Your task to perform on an android device: Add macbook pro to the cart on bestbuy, then select checkout. Image 0: 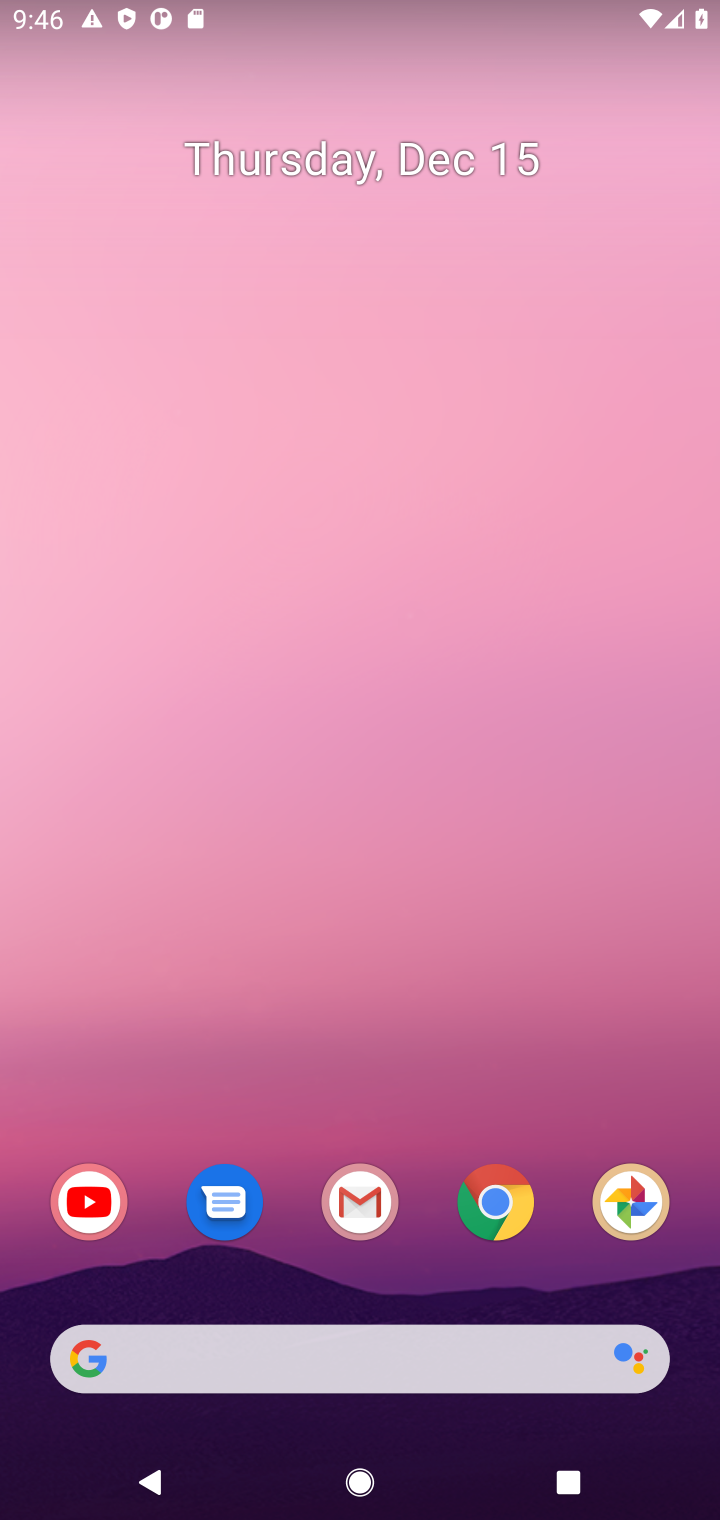
Step 0: click (497, 1209)
Your task to perform on an android device: Add macbook pro to the cart on bestbuy, then select checkout. Image 1: 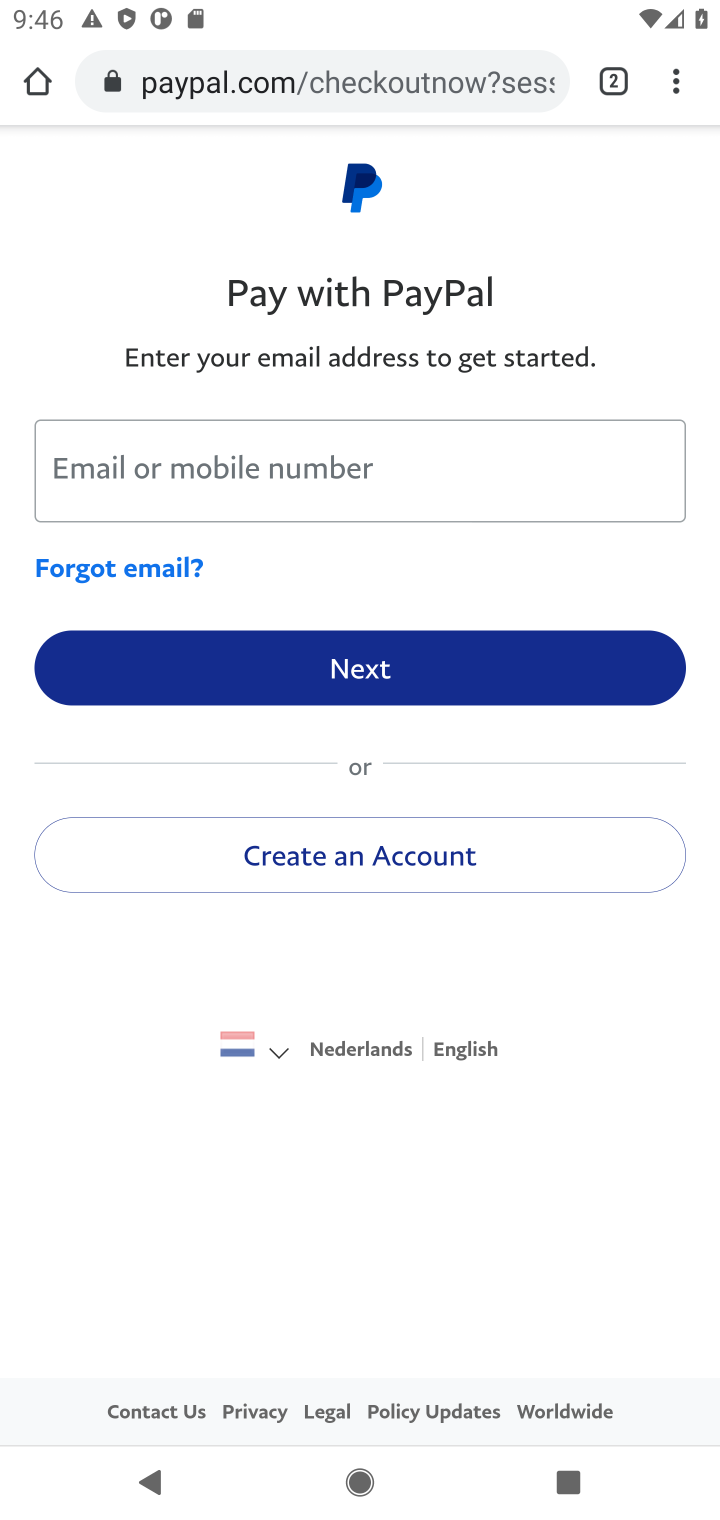
Step 1: click (286, 82)
Your task to perform on an android device: Add macbook pro to the cart on bestbuy, then select checkout. Image 2: 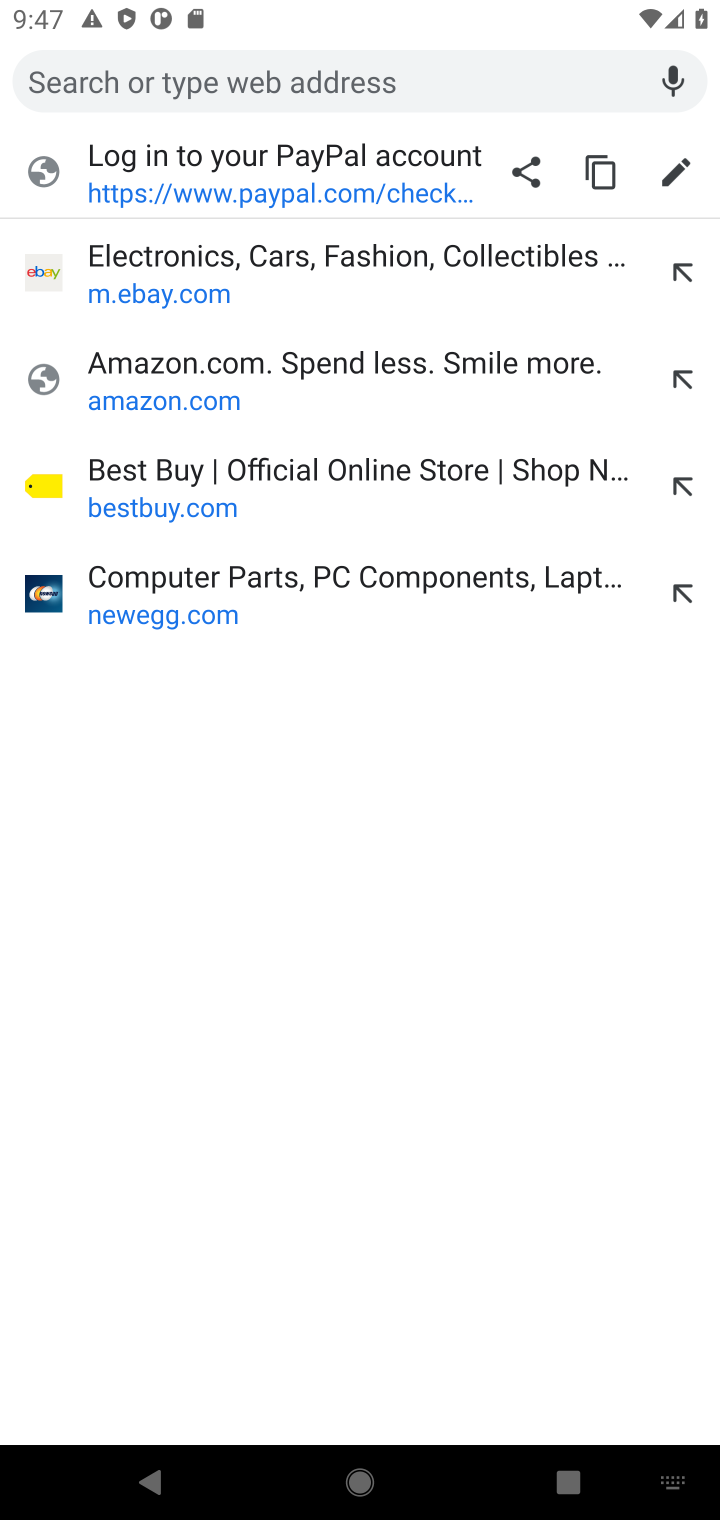
Step 2: click (105, 489)
Your task to perform on an android device: Add macbook pro to the cart on bestbuy, then select checkout. Image 3: 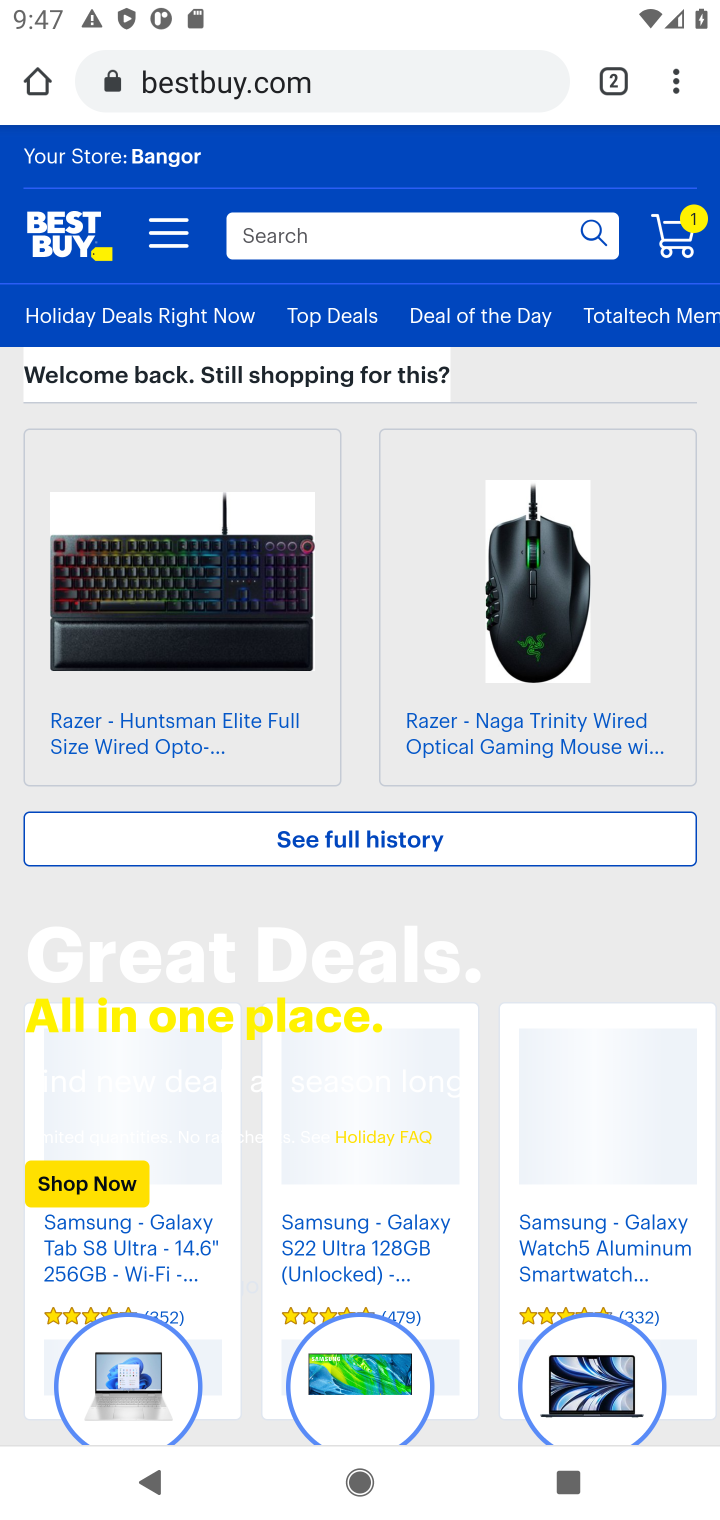
Step 3: click (279, 236)
Your task to perform on an android device: Add macbook pro to the cart on bestbuy, then select checkout. Image 4: 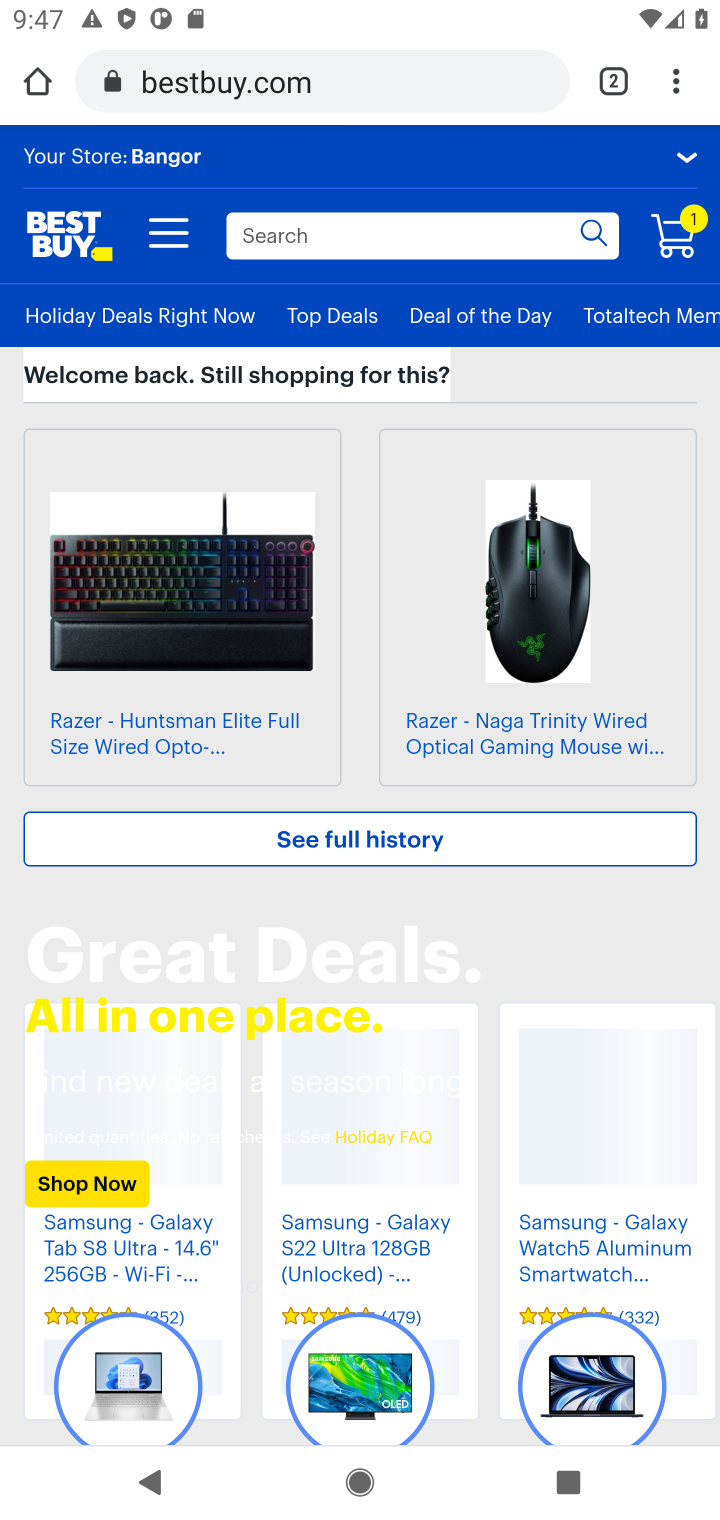
Step 4: click (301, 232)
Your task to perform on an android device: Add macbook pro to the cart on bestbuy, then select checkout. Image 5: 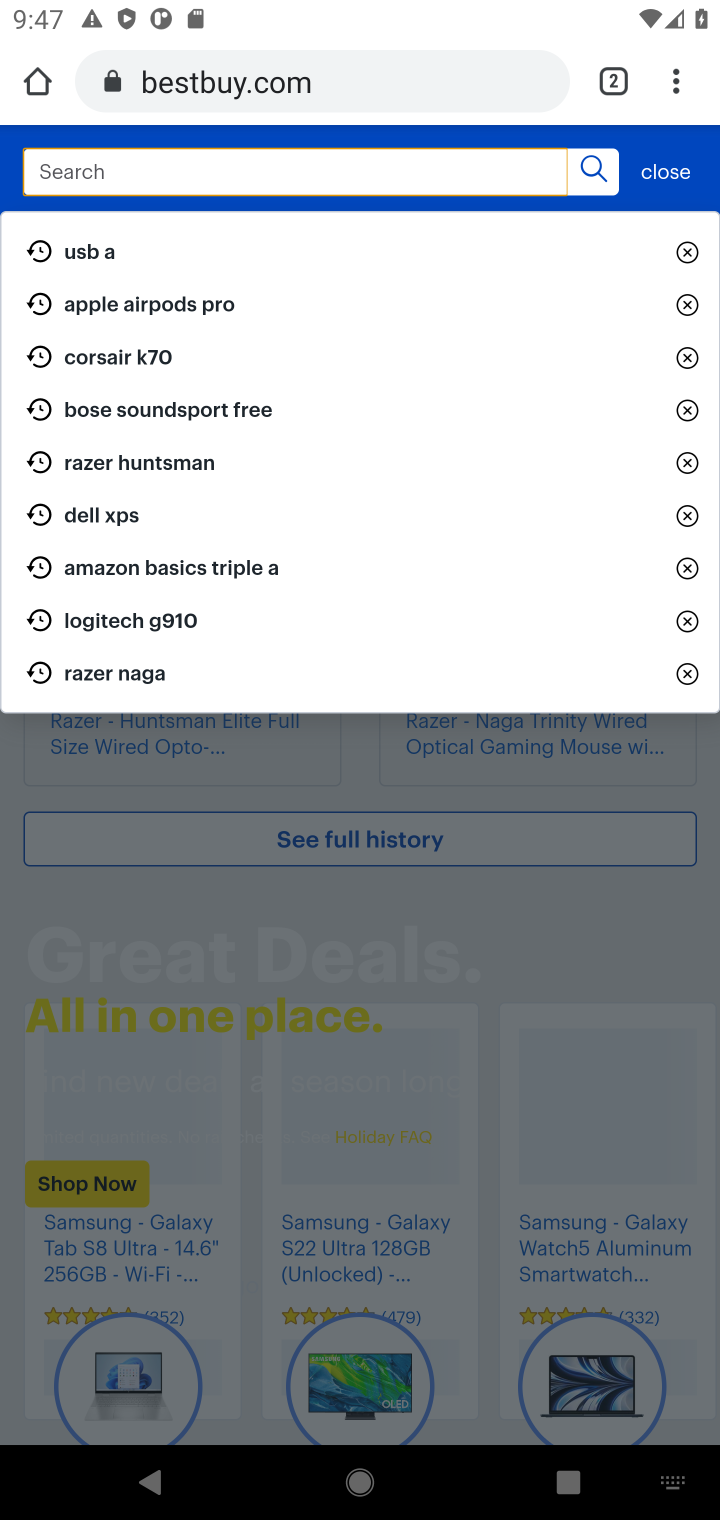
Step 5: type "macbook pro"
Your task to perform on an android device: Add macbook pro to the cart on bestbuy, then select checkout. Image 6: 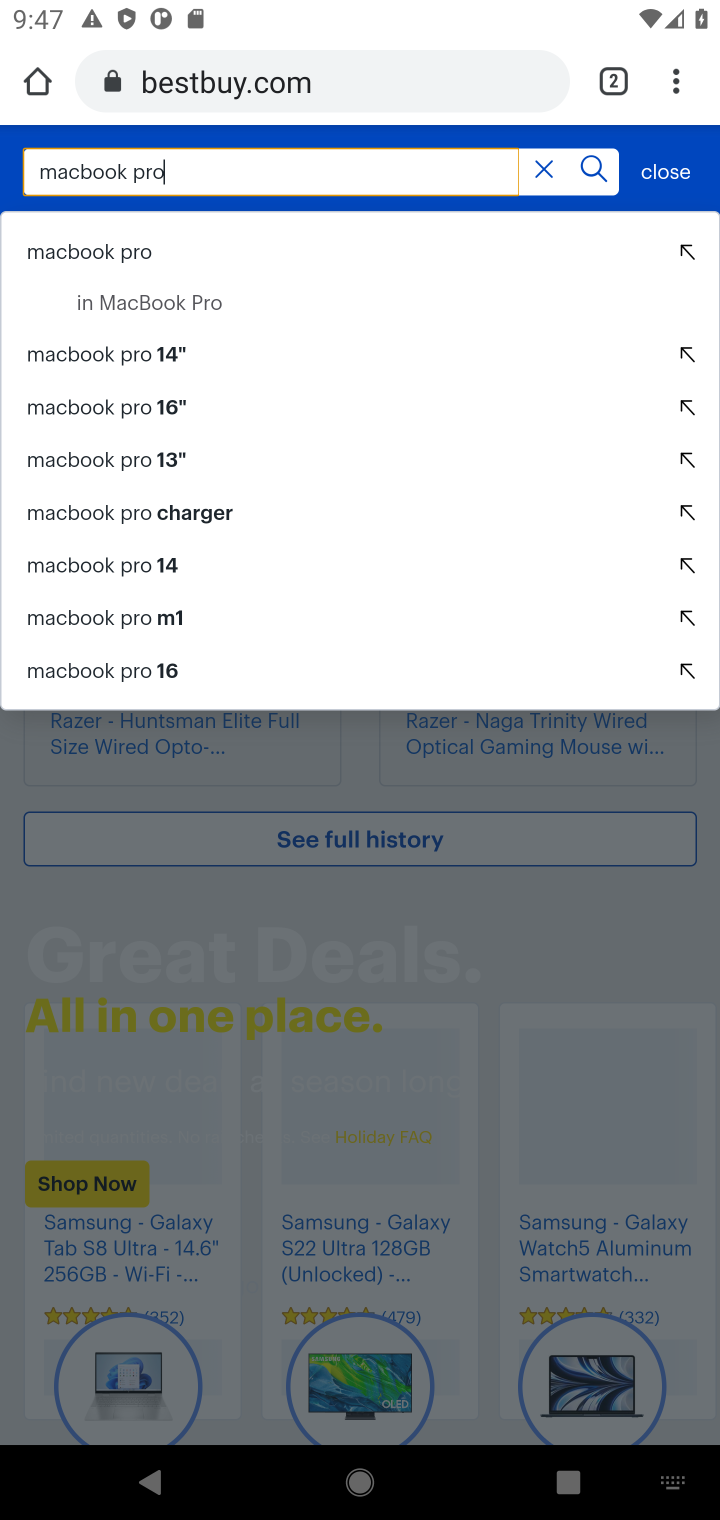
Step 6: click (45, 264)
Your task to perform on an android device: Add macbook pro to the cart on bestbuy, then select checkout. Image 7: 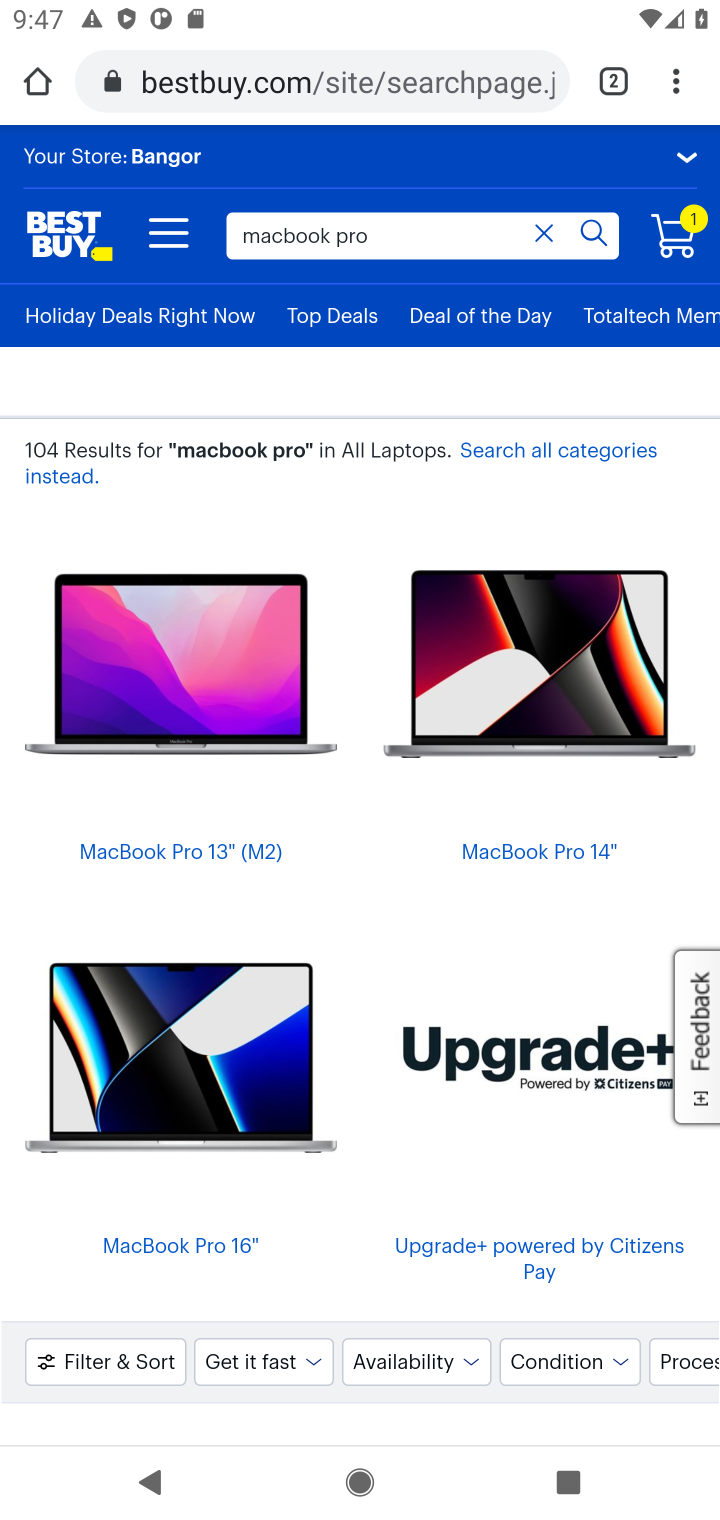
Step 7: drag from (299, 940) to (260, 278)
Your task to perform on an android device: Add macbook pro to the cart on bestbuy, then select checkout. Image 8: 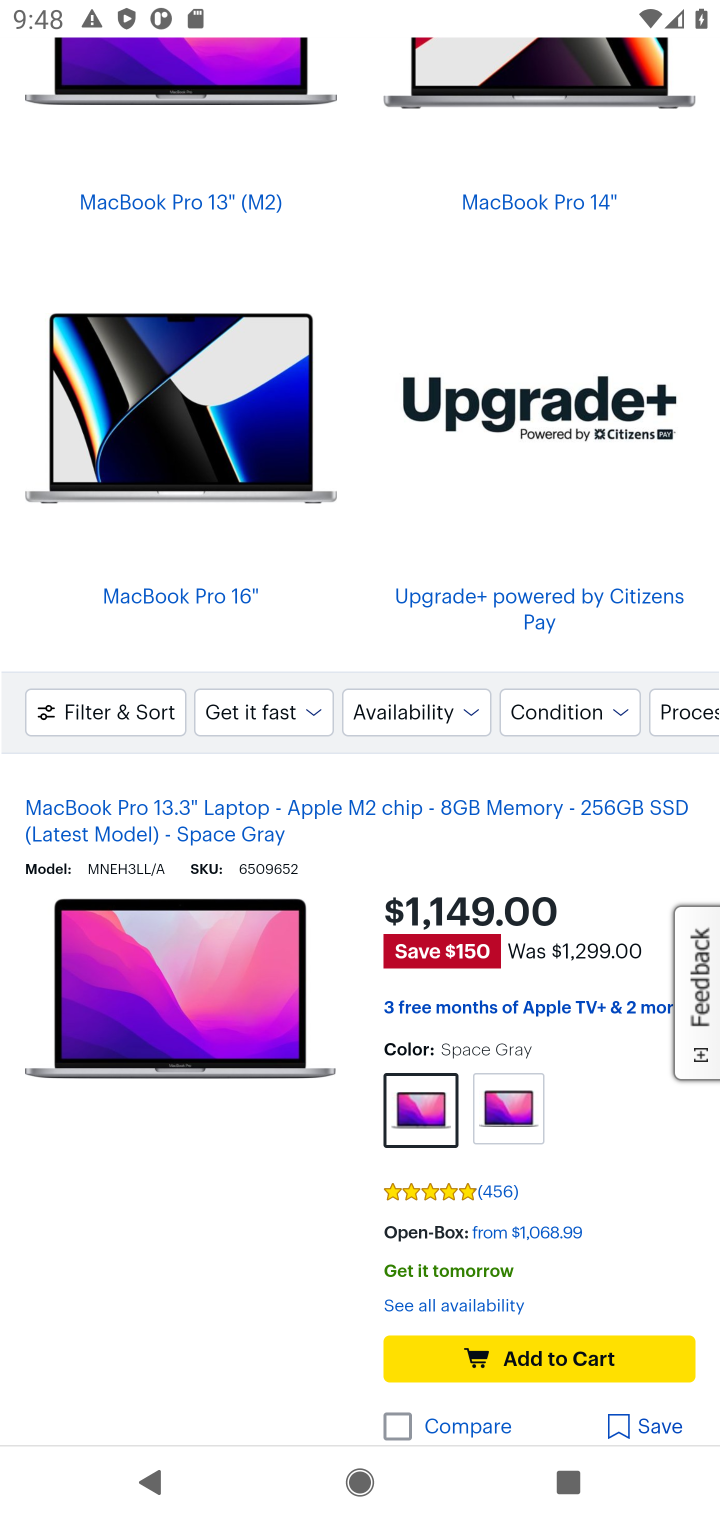
Step 8: click (529, 1359)
Your task to perform on an android device: Add macbook pro to the cart on bestbuy, then select checkout. Image 9: 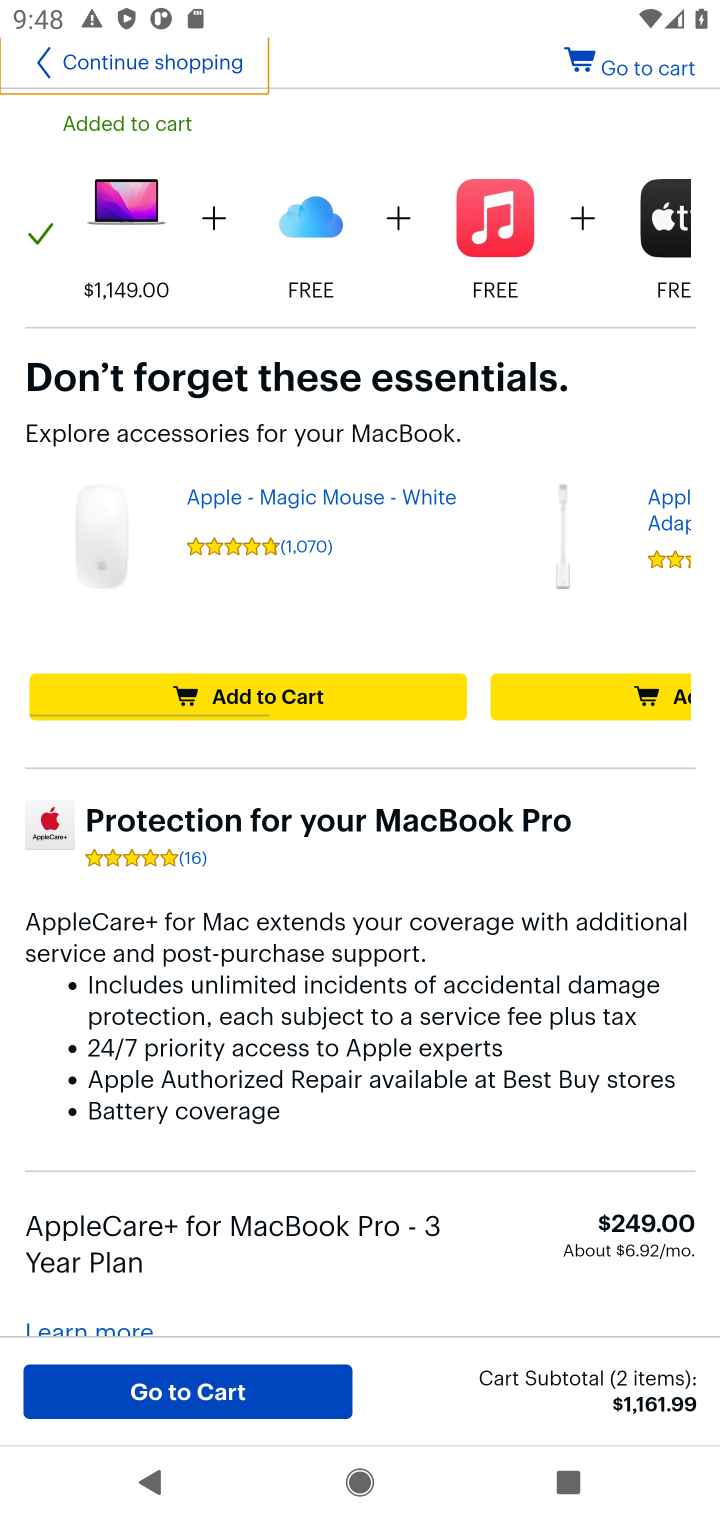
Step 9: click (670, 64)
Your task to perform on an android device: Add macbook pro to the cart on bestbuy, then select checkout. Image 10: 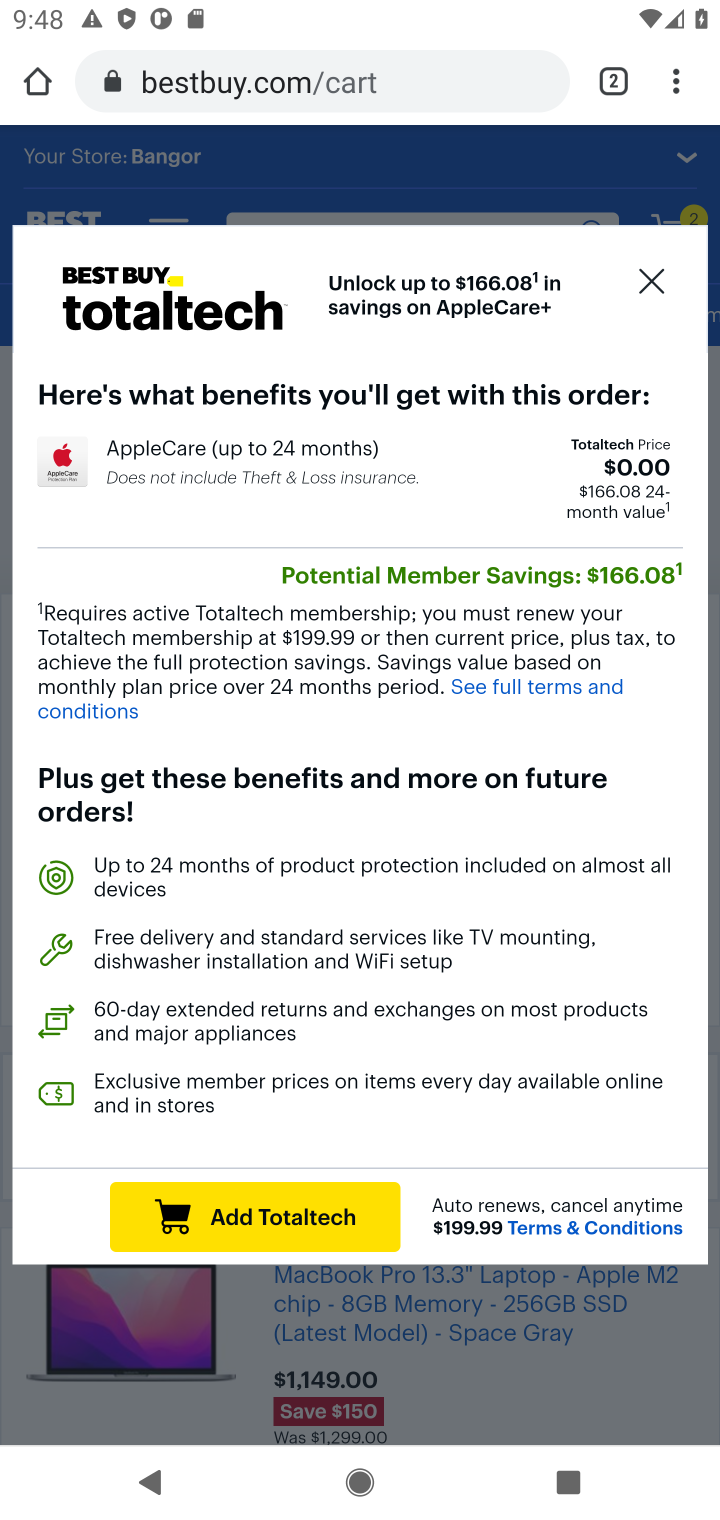
Step 10: click (652, 279)
Your task to perform on an android device: Add macbook pro to the cart on bestbuy, then select checkout. Image 11: 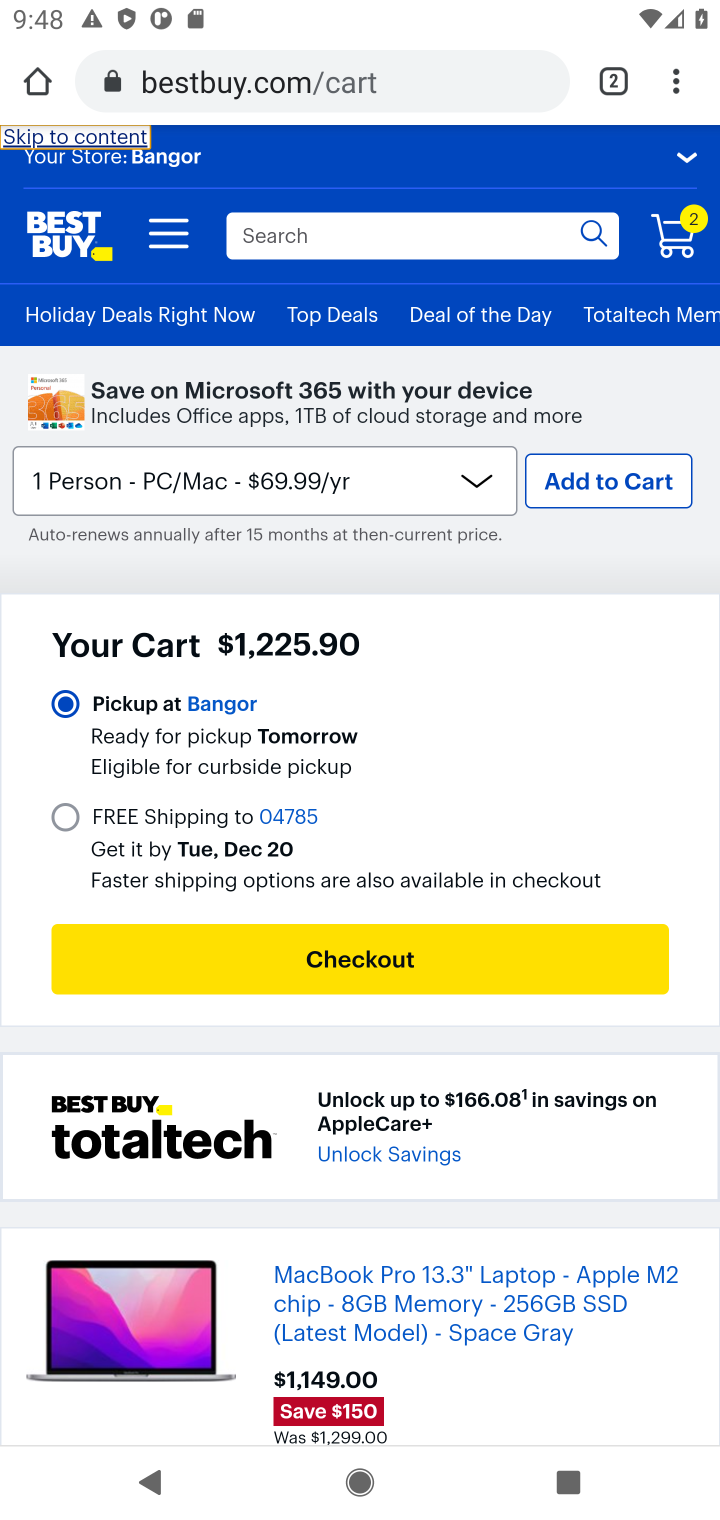
Step 11: click (412, 960)
Your task to perform on an android device: Add macbook pro to the cart on bestbuy, then select checkout. Image 12: 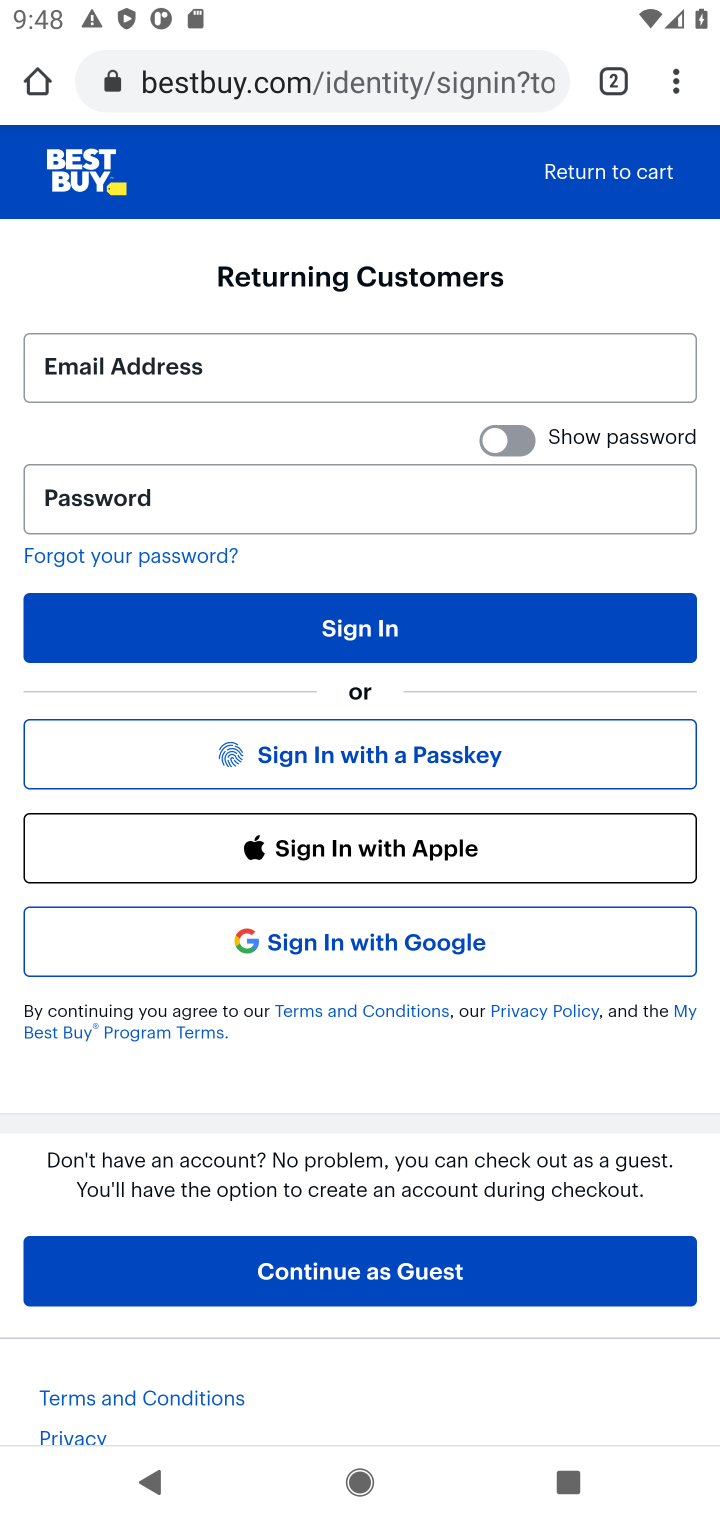
Step 12: task complete